Your task to perform on an android device: turn off translation in the chrome app Image 0: 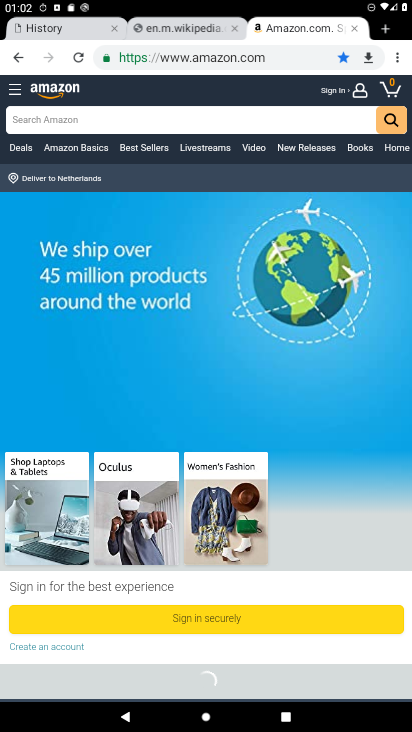
Step 0: click (401, 58)
Your task to perform on an android device: turn off translation in the chrome app Image 1: 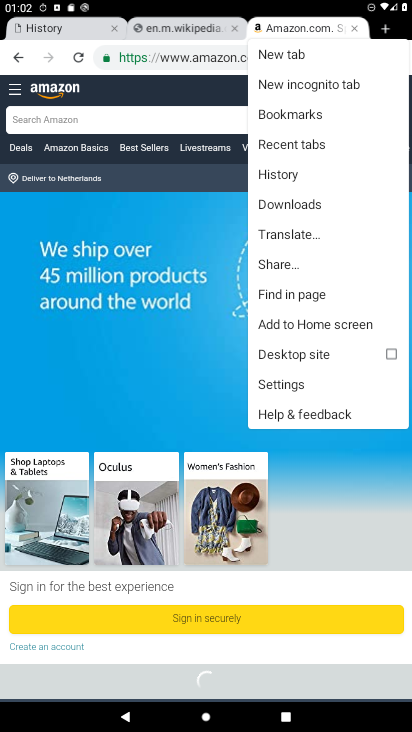
Step 1: click (320, 380)
Your task to perform on an android device: turn off translation in the chrome app Image 2: 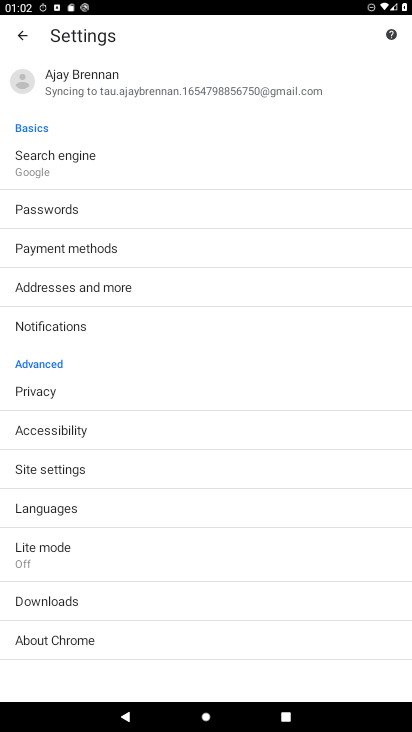
Step 2: click (96, 516)
Your task to perform on an android device: turn off translation in the chrome app Image 3: 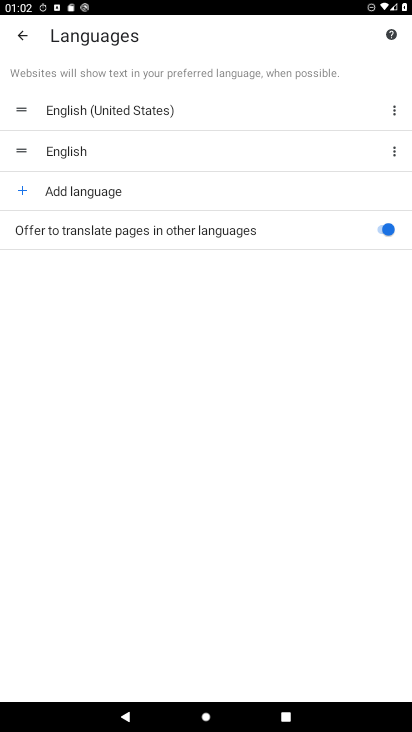
Step 3: click (379, 228)
Your task to perform on an android device: turn off translation in the chrome app Image 4: 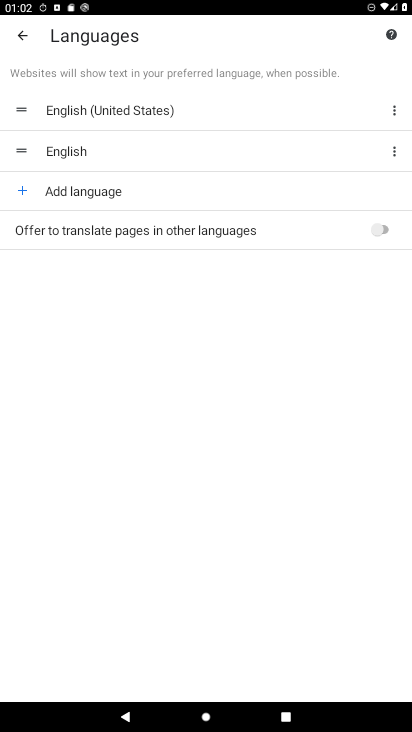
Step 4: task complete